Your task to perform on an android device: Show me popular videos on Youtube Image 0: 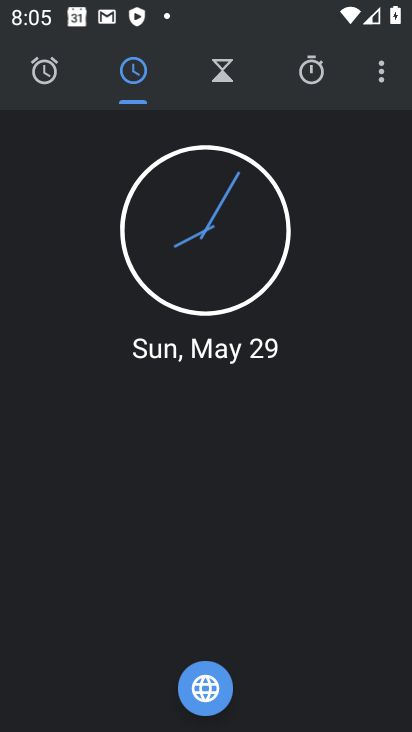
Step 0: press home button
Your task to perform on an android device: Show me popular videos on Youtube Image 1: 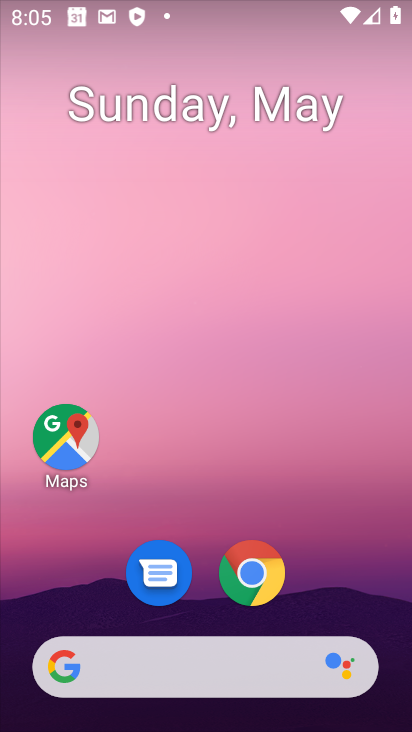
Step 1: drag from (303, 556) to (246, 9)
Your task to perform on an android device: Show me popular videos on Youtube Image 2: 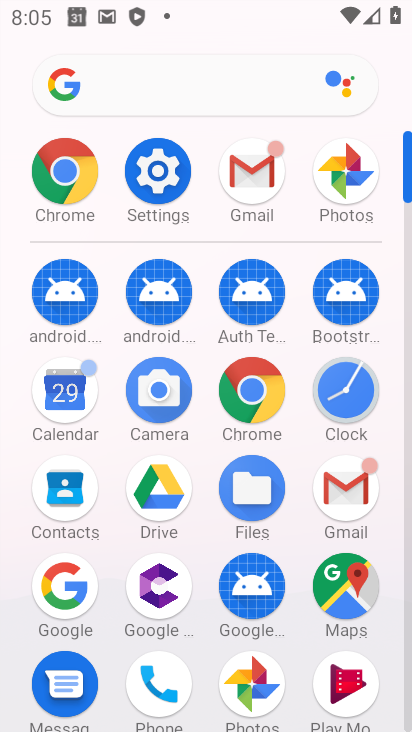
Step 2: drag from (210, 570) to (186, 198)
Your task to perform on an android device: Show me popular videos on Youtube Image 3: 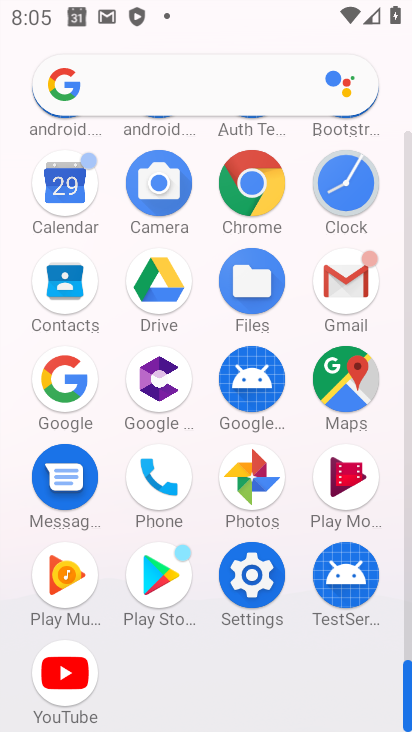
Step 3: click (65, 662)
Your task to perform on an android device: Show me popular videos on Youtube Image 4: 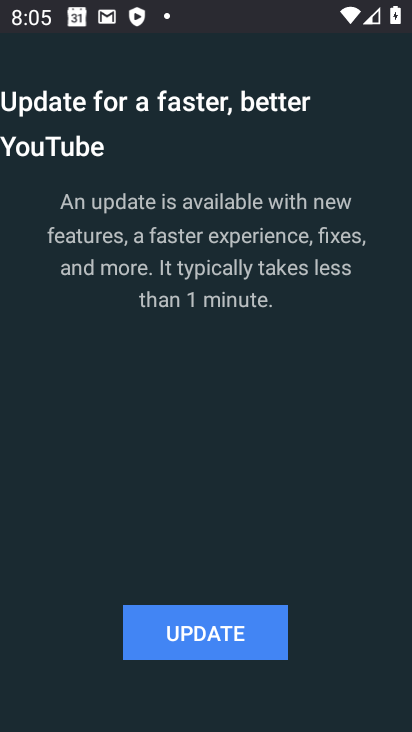
Step 4: click (216, 627)
Your task to perform on an android device: Show me popular videos on Youtube Image 5: 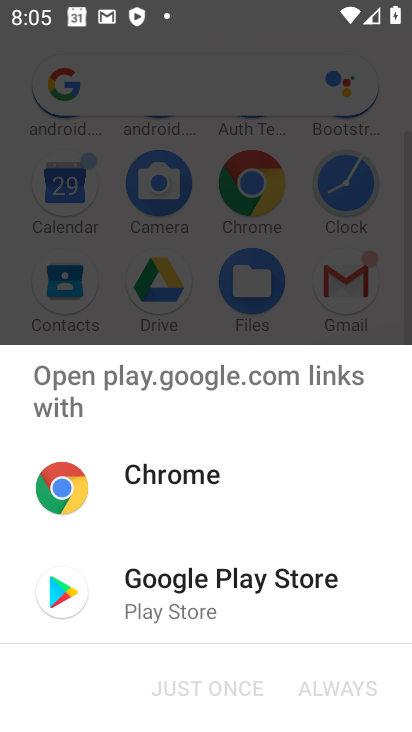
Step 5: click (210, 586)
Your task to perform on an android device: Show me popular videos on Youtube Image 6: 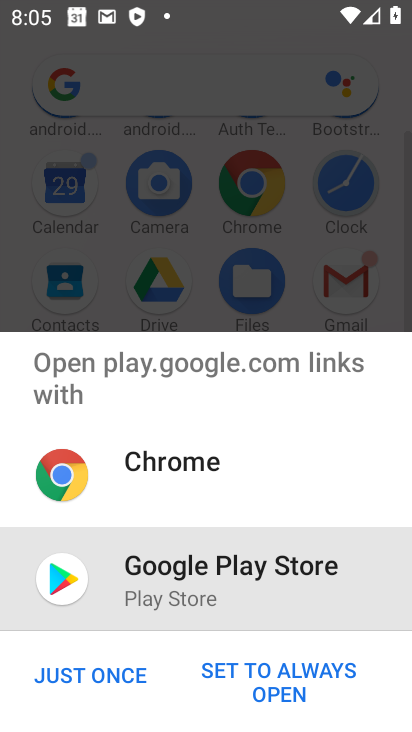
Step 6: click (130, 671)
Your task to perform on an android device: Show me popular videos on Youtube Image 7: 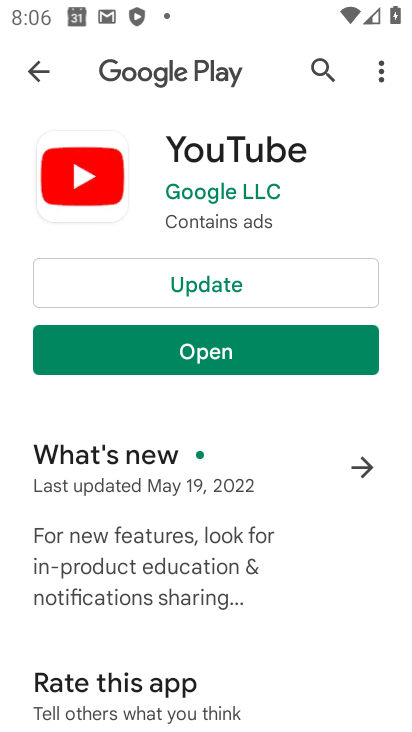
Step 7: click (361, 275)
Your task to perform on an android device: Show me popular videos on Youtube Image 8: 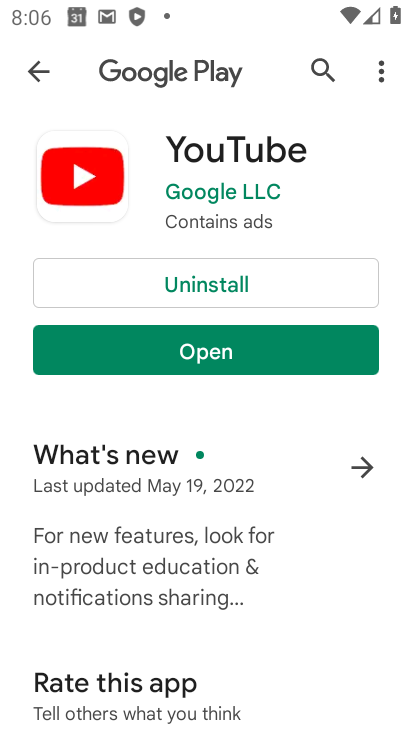
Step 8: click (338, 351)
Your task to perform on an android device: Show me popular videos on Youtube Image 9: 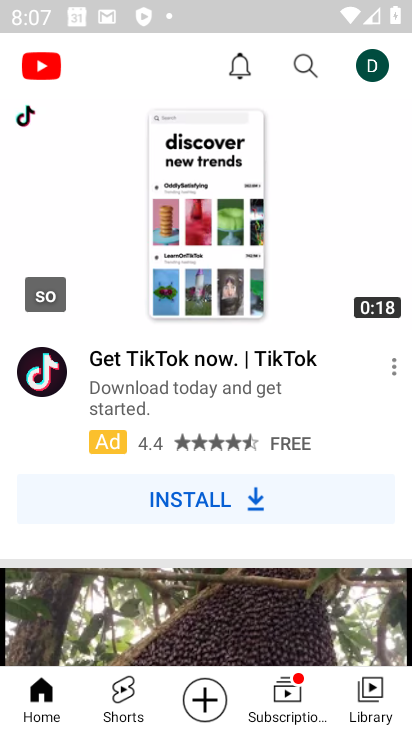
Step 9: drag from (248, 472) to (230, 117)
Your task to perform on an android device: Show me popular videos on Youtube Image 10: 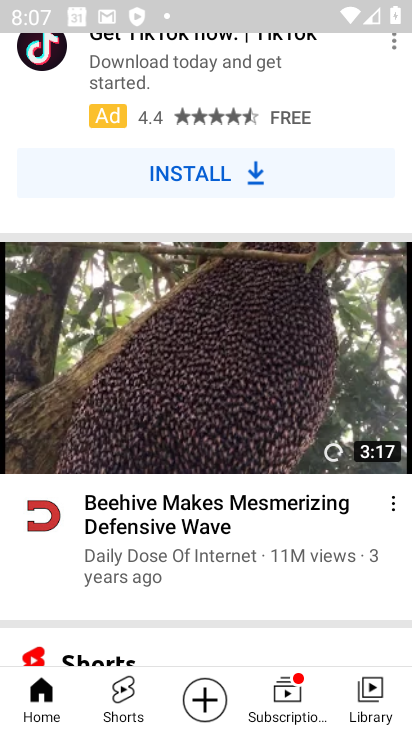
Step 10: drag from (274, 354) to (277, 97)
Your task to perform on an android device: Show me popular videos on Youtube Image 11: 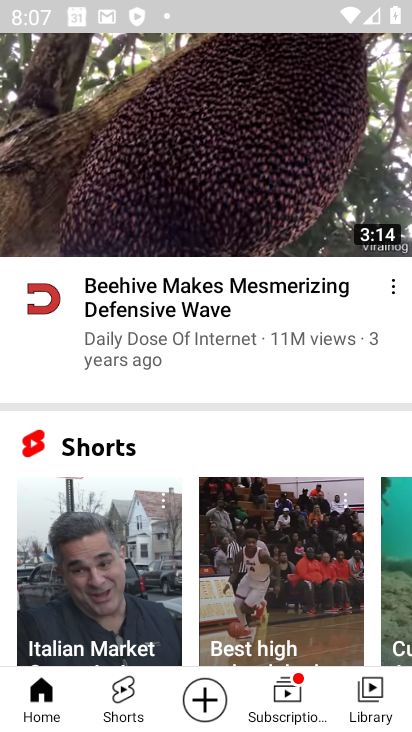
Step 11: drag from (269, 370) to (274, 84)
Your task to perform on an android device: Show me popular videos on Youtube Image 12: 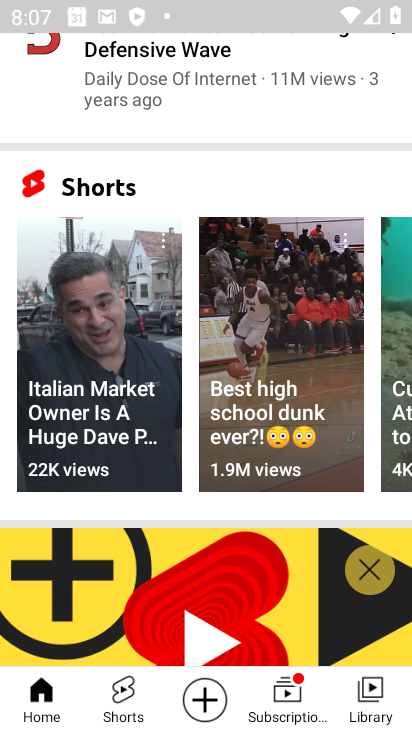
Step 12: drag from (251, 568) to (267, 214)
Your task to perform on an android device: Show me popular videos on Youtube Image 13: 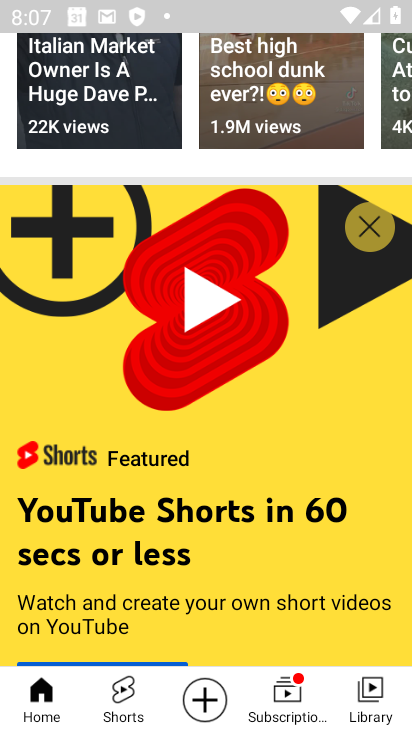
Step 13: drag from (292, 557) to (264, 179)
Your task to perform on an android device: Show me popular videos on Youtube Image 14: 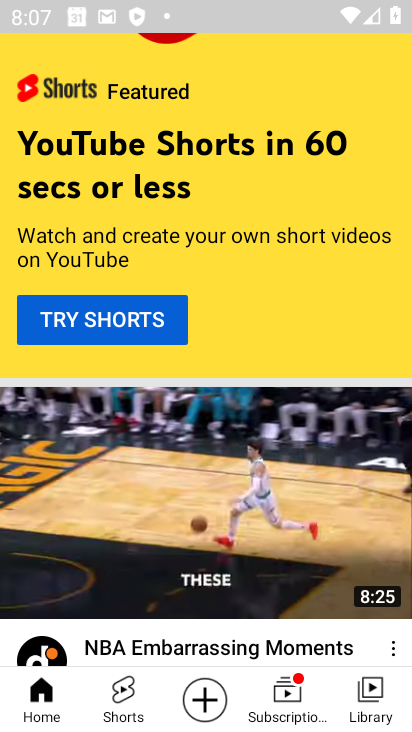
Step 14: drag from (262, 173) to (261, 500)
Your task to perform on an android device: Show me popular videos on Youtube Image 15: 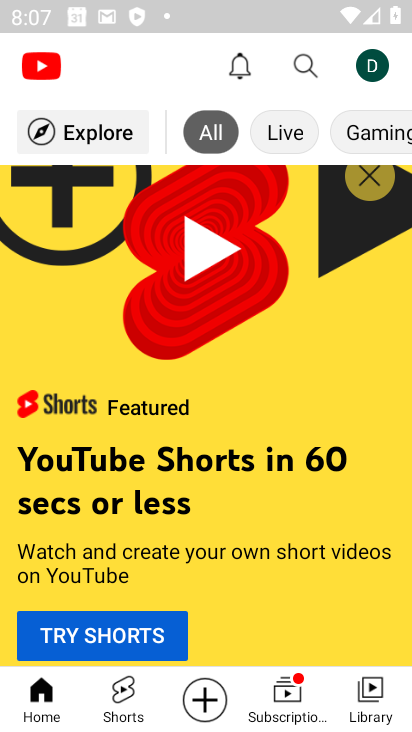
Step 15: click (304, 60)
Your task to perform on an android device: Show me popular videos on Youtube Image 16: 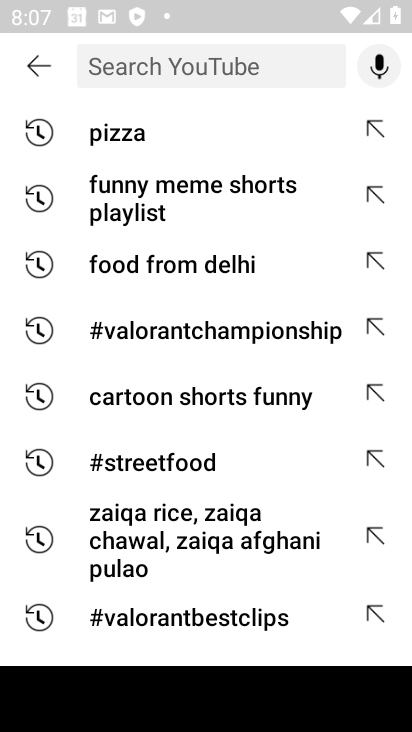
Step 16: type "popular videos"
Your task to perform on an android device: Show me popular videos on Youtube Image 17: 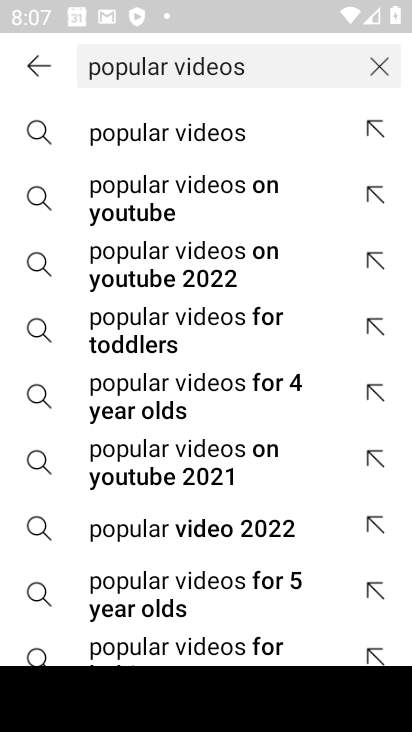
Step 17: click (153, 185)
Your task to perform on an android device: Show me popular videos on Youtube Image 18: 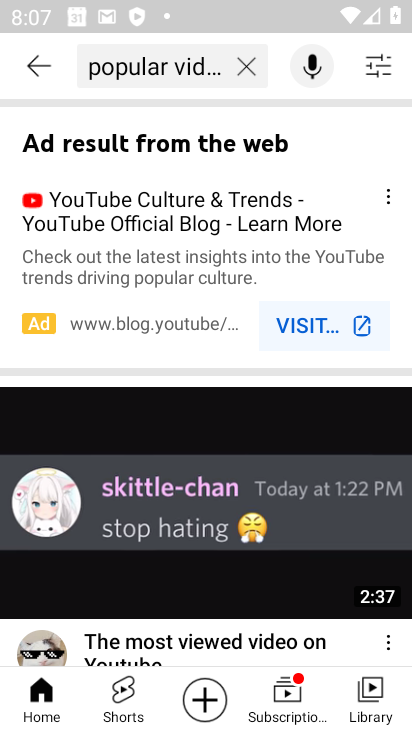
Step 18: task complete